Your task to perform on an android device: Open Youtube and go to the subscriptions tab Image 0: 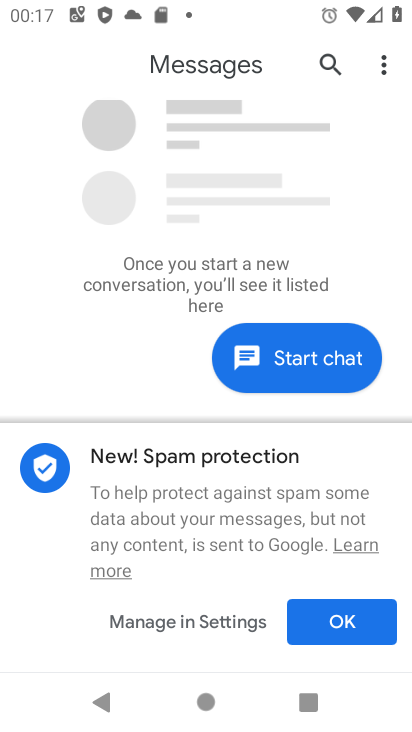
Step 0: press home button
Your task to perform on an android device: Open Youtube and go to the subscriptions tab Image 1: 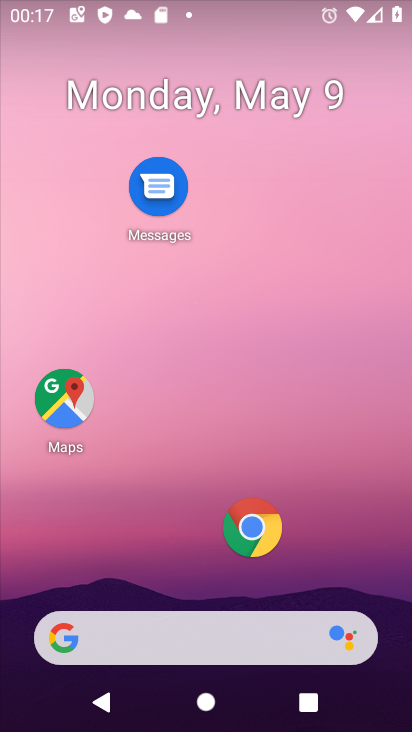
Step 1: drag from (183, 570) to (194, 32)
Your task to perform on an android device: Open Youtube and go to the subscriptions tab Image 2: 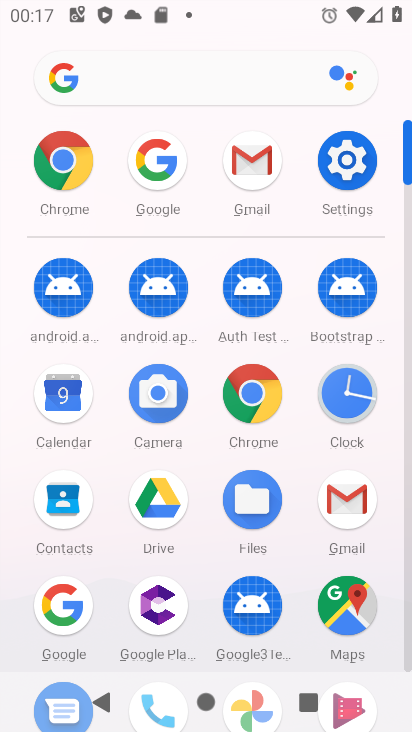
Step 2: drag from (202, 610) to (193, 115)
Your task to perform on an android device: Open Youtube and go to the subscriptions tab Image 3: 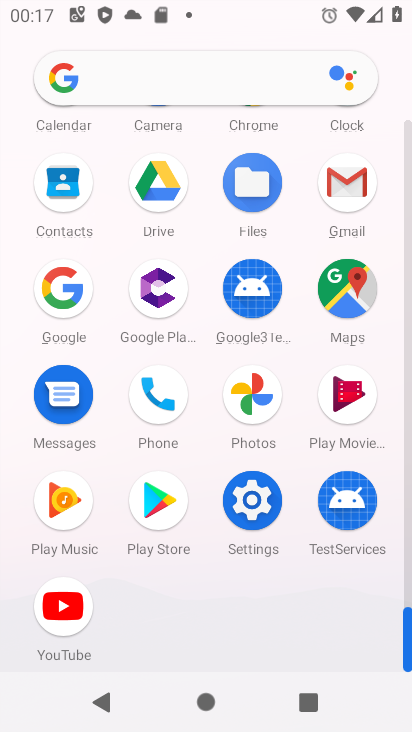
Step 3: click (62, 595)
Your task to perform on an android device: Open Youtube and go to the subscriptions tab Image 4: 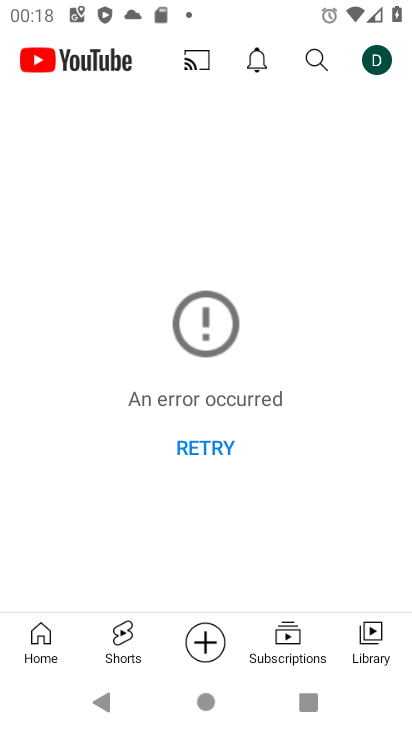
Step 4: click (266, 629)
Your task to perform on an android device: Open Youtube and go to the subscriptions tab Image 5: 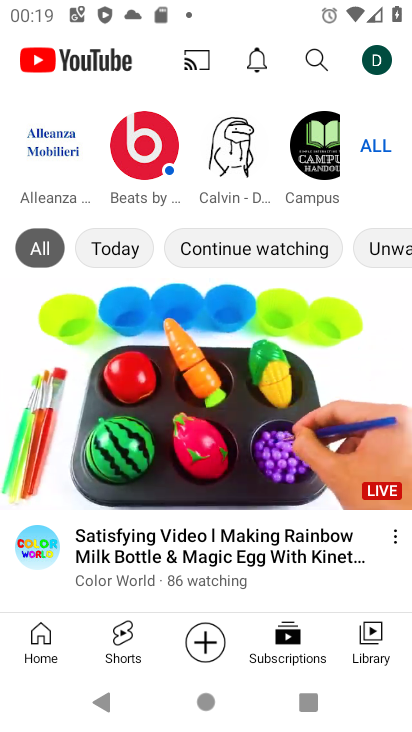
Step 5: task complete